Your task to perform on an android device: open app "Google Sheets" Image 0: 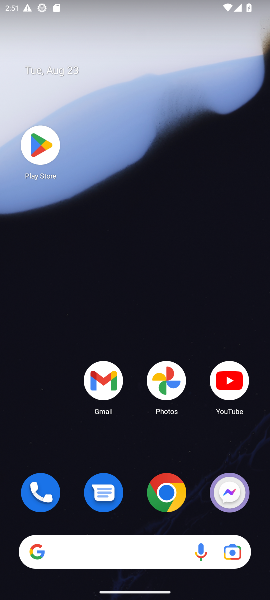
Step 0: drag from (137, 521) to (147, 18)
Your task to perform on an android device: open app "Google Sheets" Image 1: 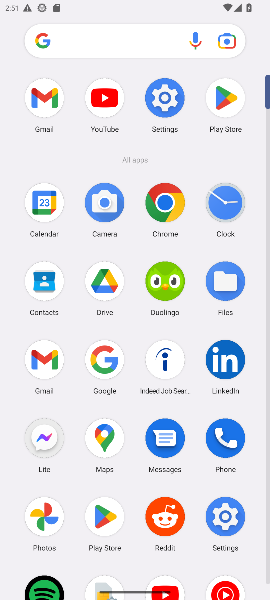
Step 1: click (221, 97)
Your task to perform on an android device: open app "Google Sheets" Image 2: 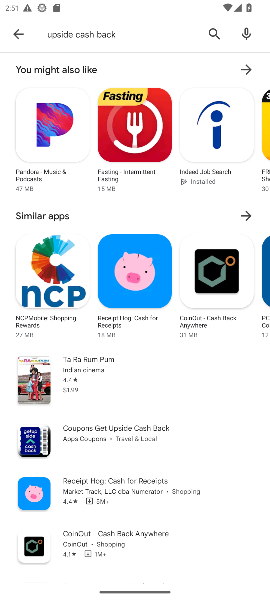
Step 2: click (214, 40)
Your task to perform on an android device: open app "Google Sheets" Image 3: 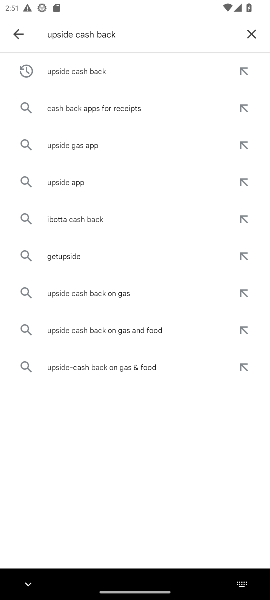
Step 3: click (249, 37)
Your task to perform on an android device: open app "Google Sheets" Image 4: 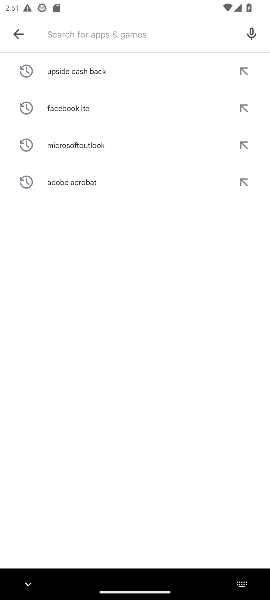
Step 4: type "google sheet"
Your task to perform on an android device: open app "Google Sheets" Image 5: 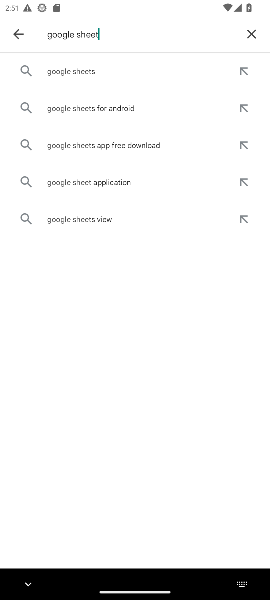
Step 5: click (79, 84)
Your task to perform on an android device: open app "Google Sheets" Image 6: 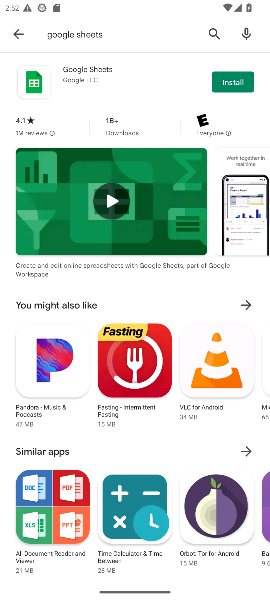
Step 6: click (240, 90)
Your task to perform on an android device: open app "Google Sheets" Image 7: 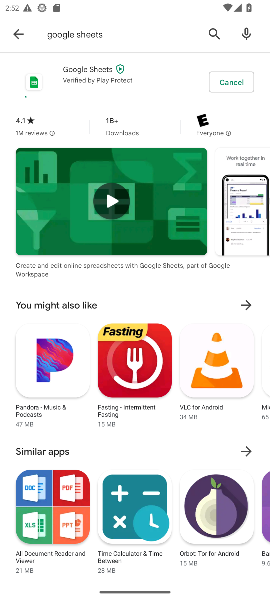
Step 7: task complete